Your task to perform on an android device: Open the phone app and click the voicemail tab. Image 0: 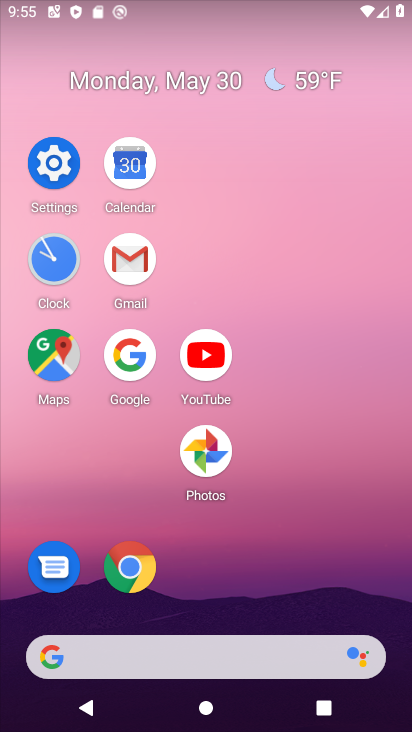
Step 0: click (141, 246)
Your task to perform on an android device: Open the phone app and click the voicemail tab. Image 1: 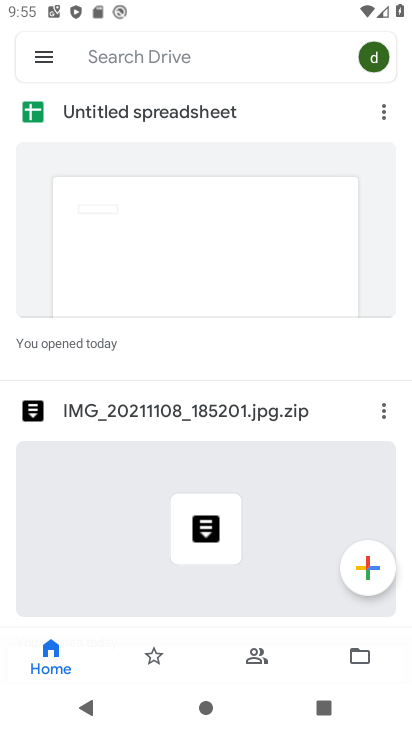
Step 1: press home button
Your task to perform on an android device: Open the phone app and click the voicemail tab. Image 2: 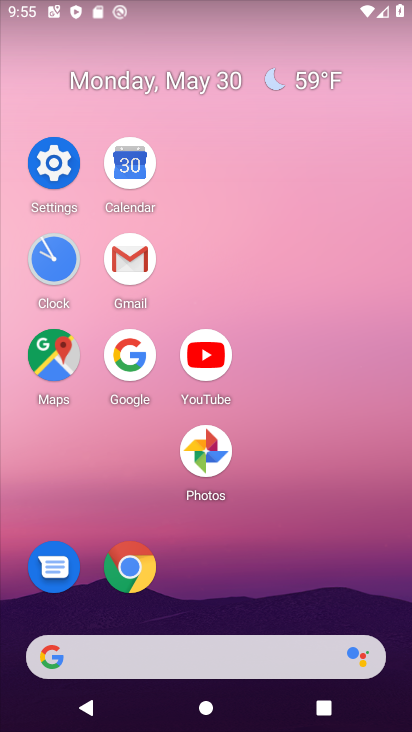
Step 2: drag from (342, 584) to (371, 32)
Your task to perform on an android device: Open the phone app and click the voicemail tab. Image 3: 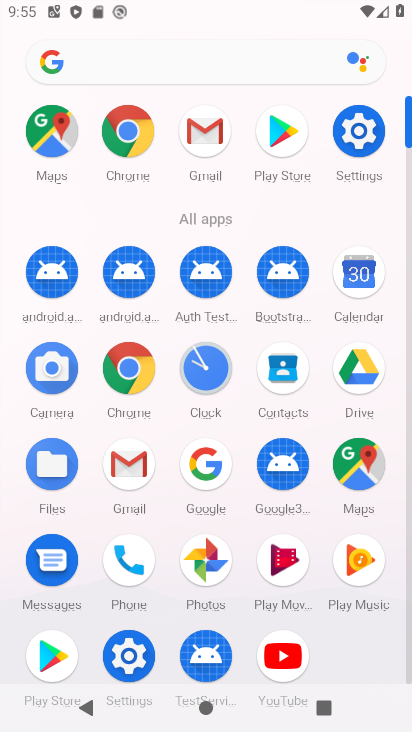
Step 3: click (126, 562)
Your task to perform on an android device: Open the phone app and click the voicemail tab. Image 4: 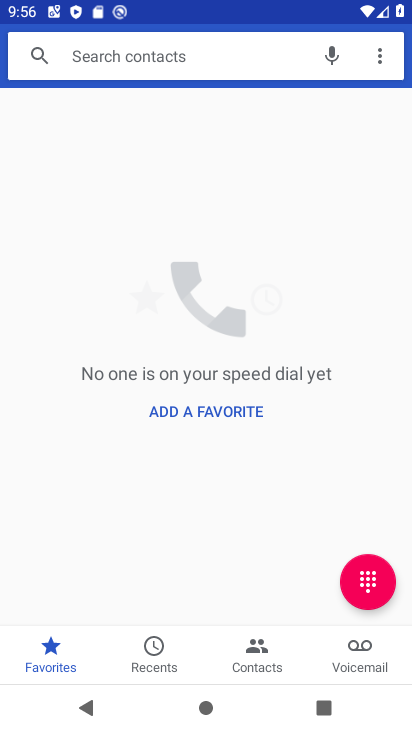
Step 4: click (335, 658)
Your task to perform on an android device: Open the phone app and click the voicemail tab. Image 5: 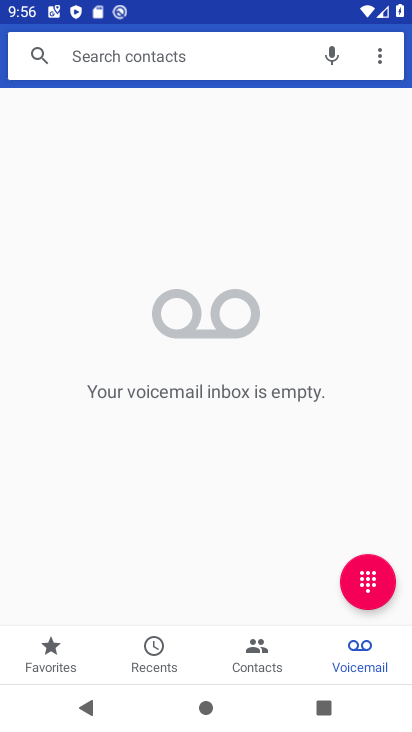
Step 5: task complete